Your task to perform on an android device: change the clock display to analog Image 0: 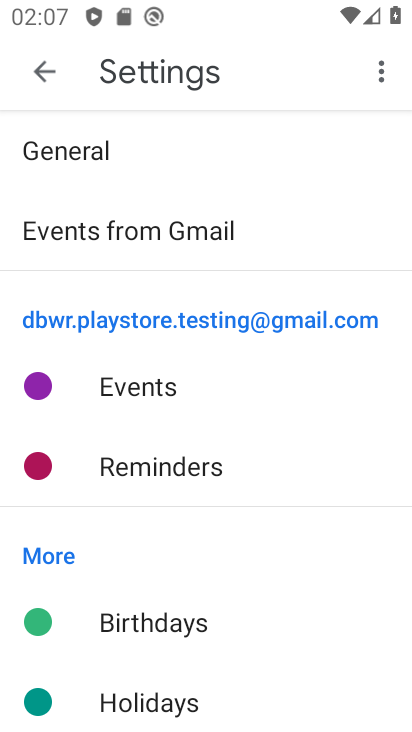
Step 0: press home button
Your task to perform on an android device: change the clock display to analog Image 1: 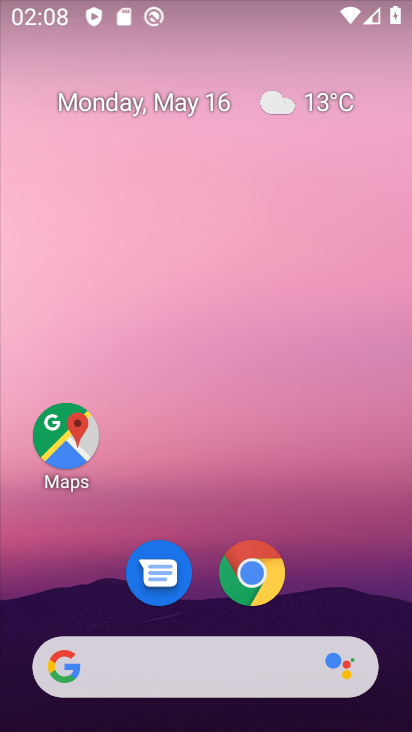
Step 1: drag from (207, 615) to (201, 57)
Your task to perform on an android device: change the clock display to analog Image 2: 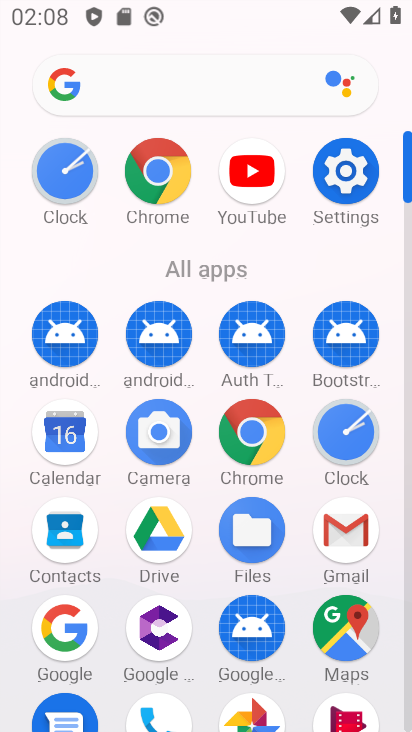
Step 2: click (347, 428)
Your task to perform on an android device: change the clock display to analog Image 3: 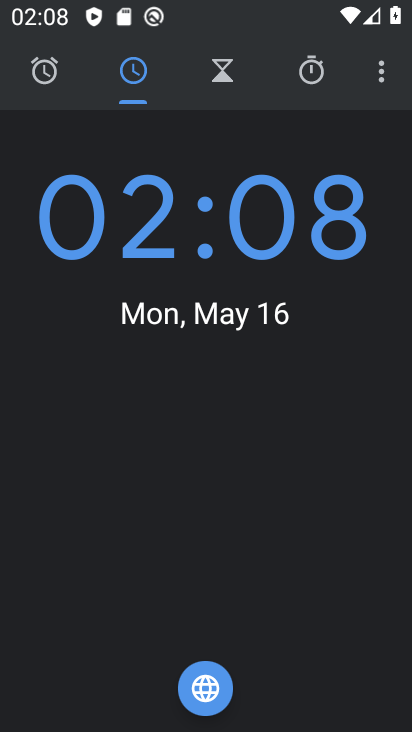
Step 3: click (387, 69)
Your task to perform on an android device: change the clock display to analog Image 4: 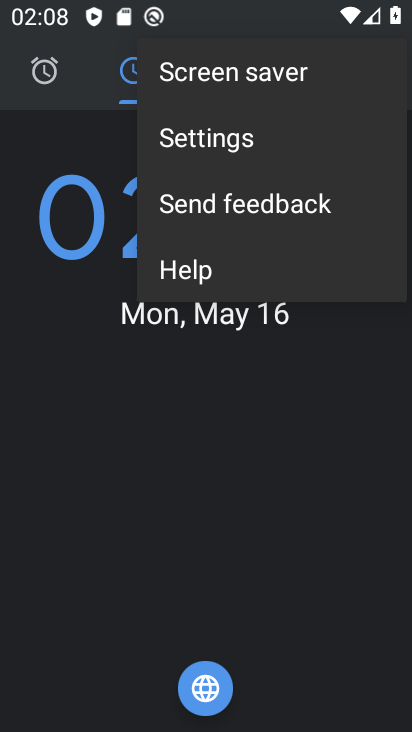
Step 4: click (236, 148)
Your task to perform on an android device: change the clock display to analog Image 5: 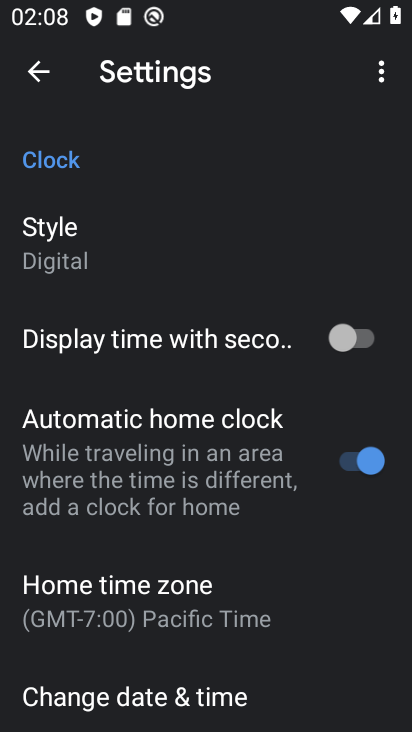
Step 5: click (182, 254)
Your task to perform on an android device: change the clock display to analog Image 6: 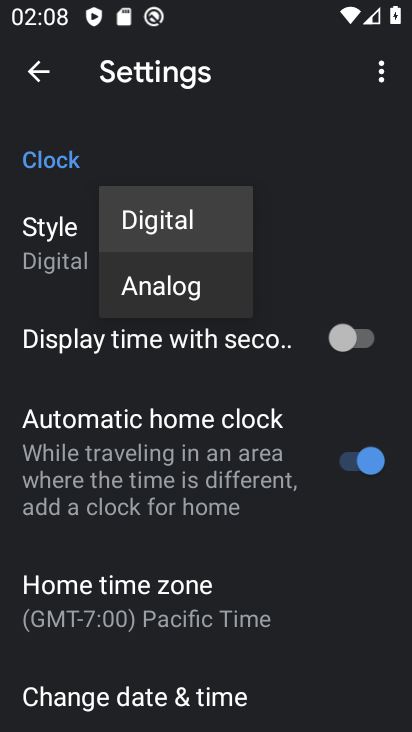
Step 6: click (168, 286)
Your task to perform on an android device: change the clock display to analog Image 7: 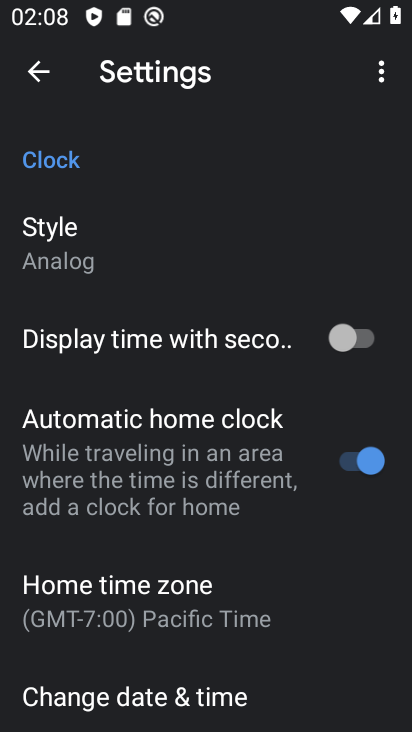
Step 7: task complete